Your task to perform on an android device: Go to Yahoo.com Image 0: 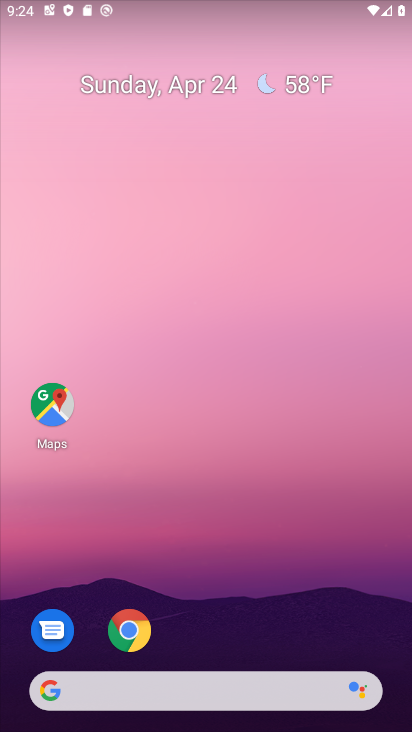
Step 0: click (130, 642)
Your task to perform on an android device: Go to Yahoo.com Image 1: 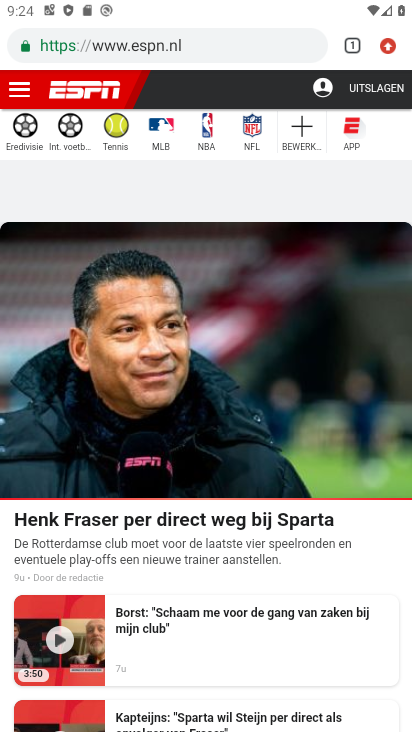
Step 1: click (205, 41)
Your task to perform on an android device: Go to Yahoo.com Image 2: 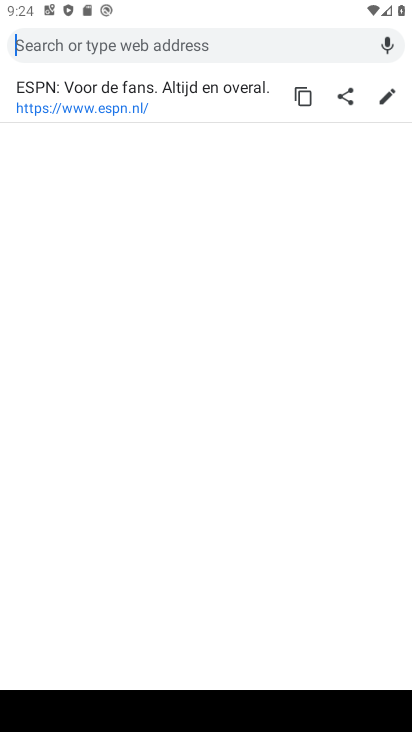
Step 2: type "yahoo.com"
Your task to perform on an android device: Go to Yahoo.com Image 3: 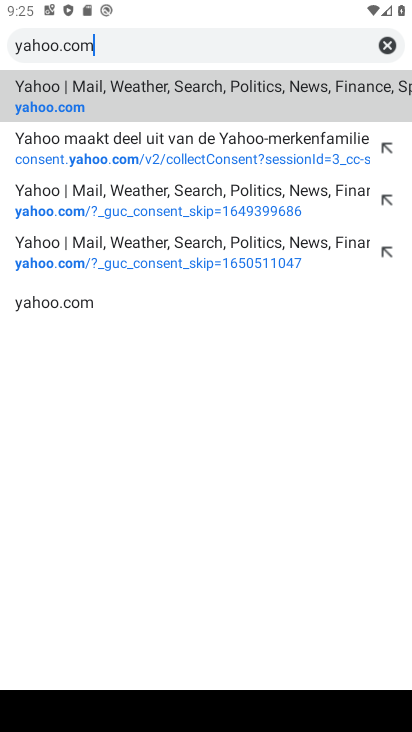
Step 3: click (270, 88)
Your task to perform on an android device: Go to Yahoo.com Image 4: 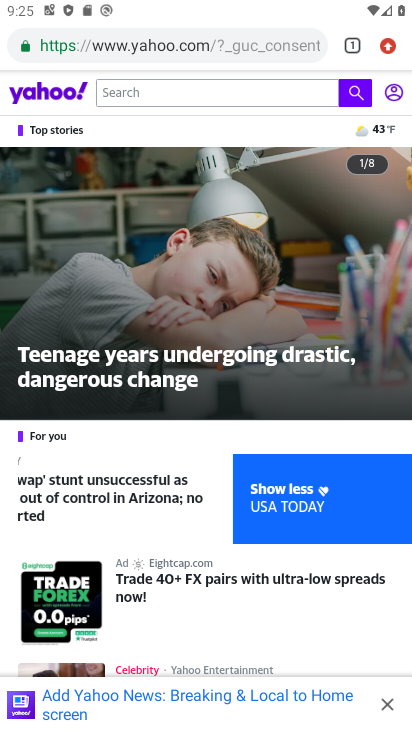
Step 4: task complete